Your task to perform on an android device: search for starred emails in the gmail app Image 0: 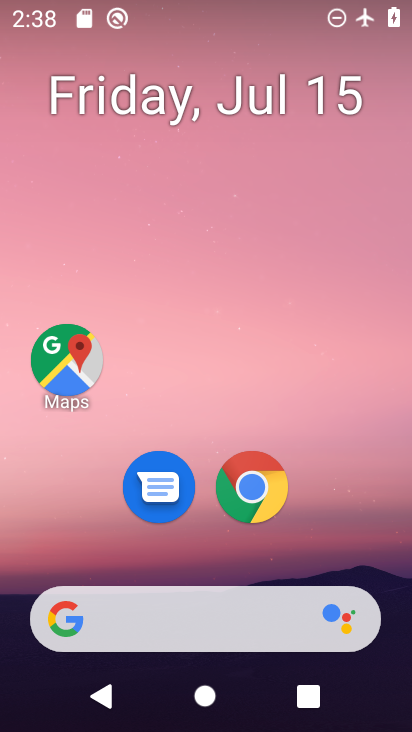
Step 0: drag from (259, 619) to (277, 134)
Your task to perform on an android device: search for starred emails in the gmail app Image 1: 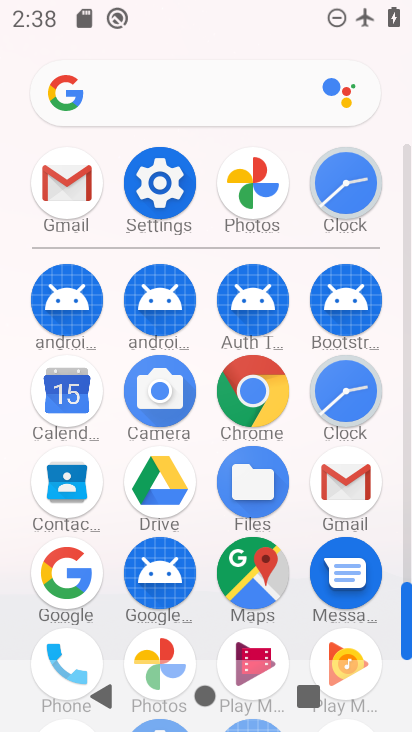
Step 1: click (351, 513)
Your task to perform on an android device: search for starred emails in the gmail app Image 2: 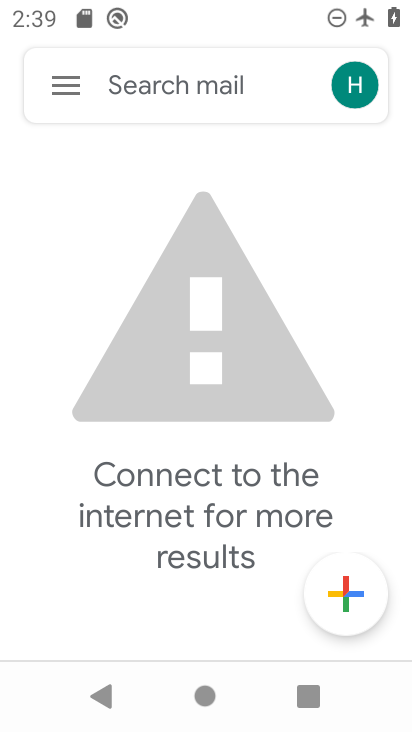
Step 2: click (43, 94)
Your task to perform on an android device: search for starred emails in the gmail app Image 3: 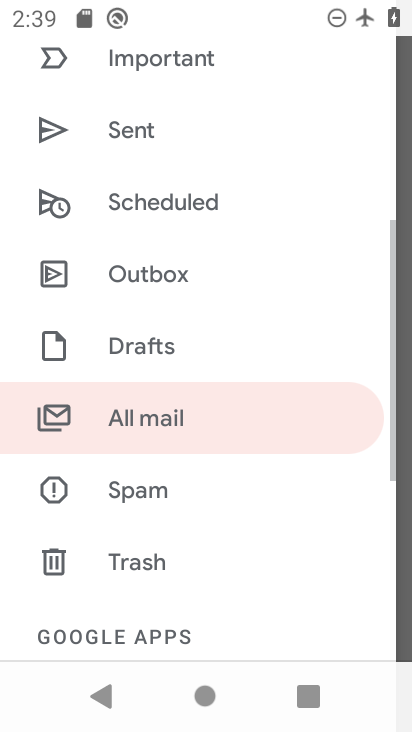
Step 3: drag from (93, 231) to (157, 647)
Your task to perform on an android device: search for starred emails in the gmail app Image 4: 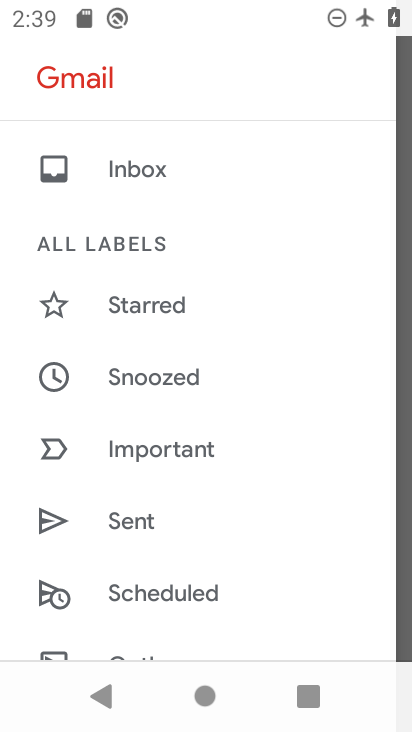
Step 4: click (179, 304)
Your task to perform on an android device: search for starred emails in the gmail app Image 5: 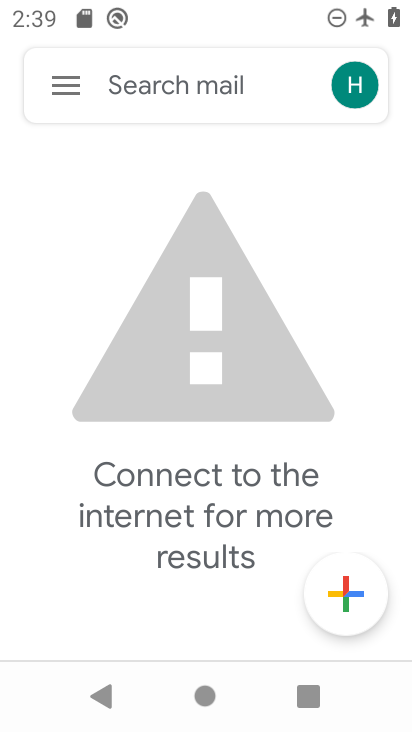
Step 5: task complete